Your task to perform on an android device: turn on improve location accuracy Image 0: 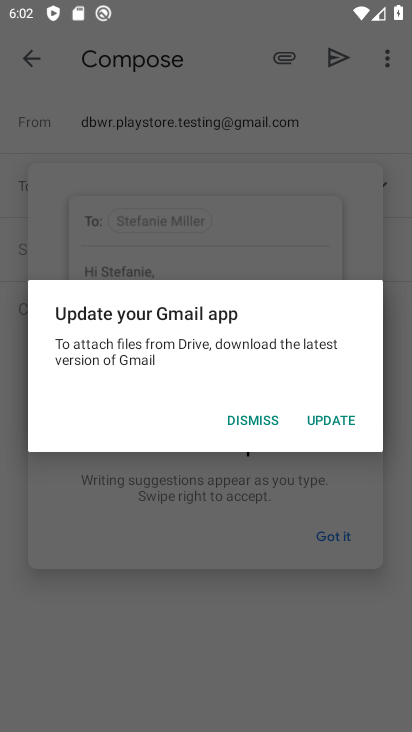
Step 0: press home button
Your task to perform on an android device: turn on improve location accuracy Image 1: 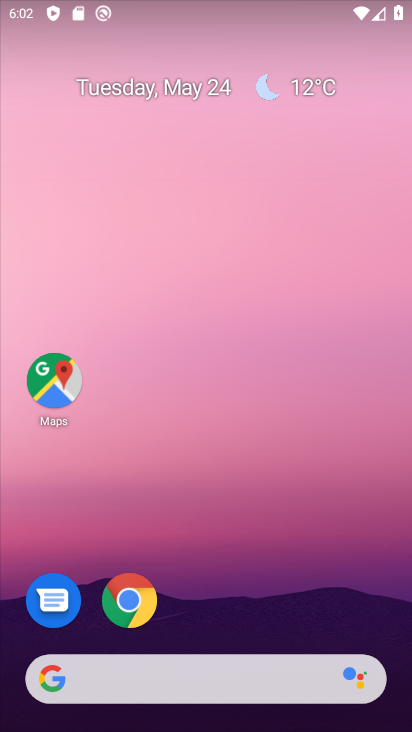
Step 1: drag from (236, 690) to (185, 82)
Your task to perform on an android device: turn on improve location accuracy Image 2: 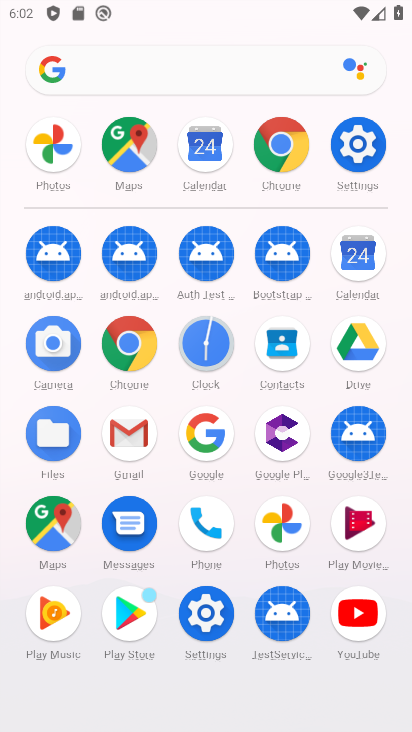
Step 2: click (226, 627)
Your task to perform on an android device: turn on improve location accuracy Image 3: 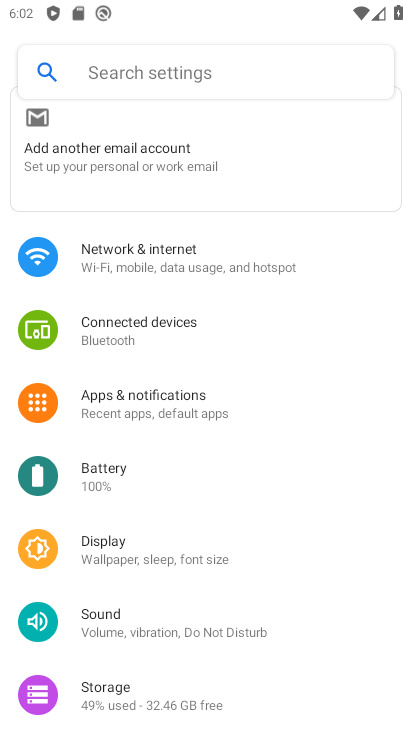
Step 3: drag from (215, 677) to (224, 289)
Your task to perform on an android device: turn on improve location accuracy Image 4: 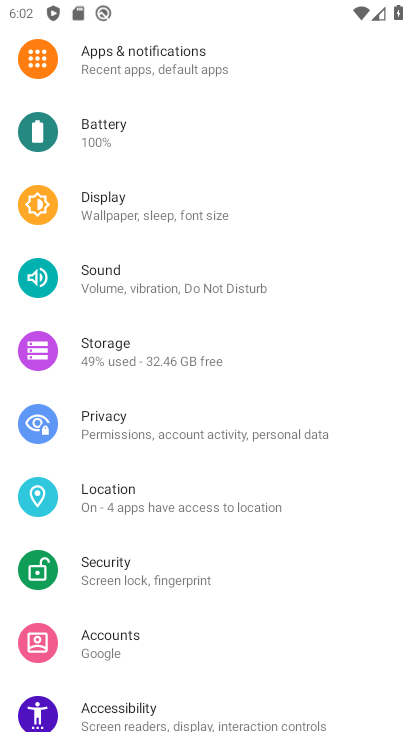
Step 4: click (166, 498)
Your task to perform on an android device: turn on improve location accuracy Image 5: 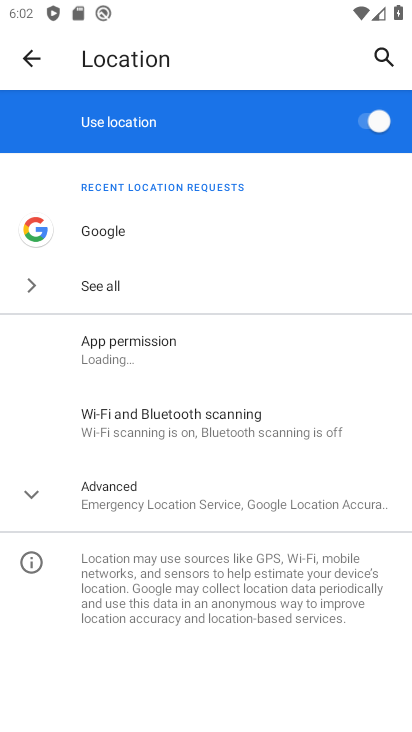
Step 5: drag from (259, 644) to (262, 346)
Your task to perform on an android device: turn on improve location accuracy Image 6: 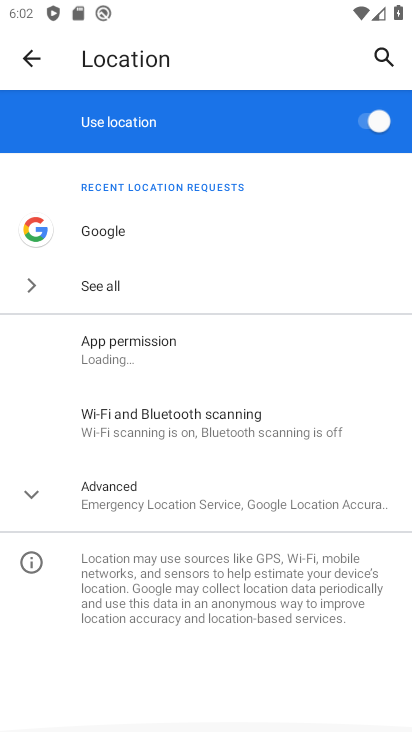
Step 6: click (225, 500)
Your task to perform on an android device: turn on improve location accuracy Image 7: 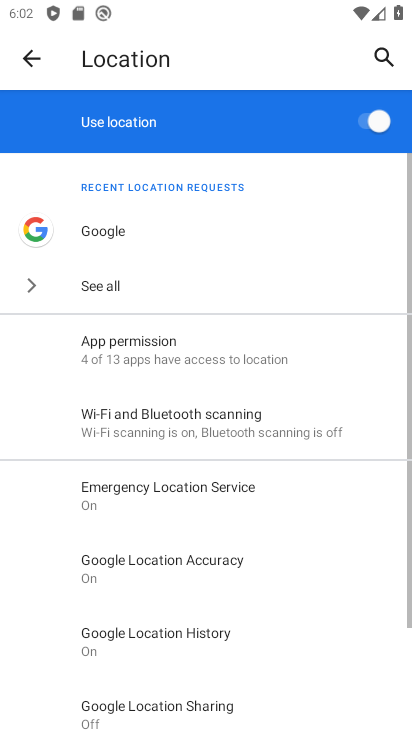
Step 7: drag from (258, 658) to (150, 418)
Your task to perform on an android device: turn on improve location accuracy Image 8: 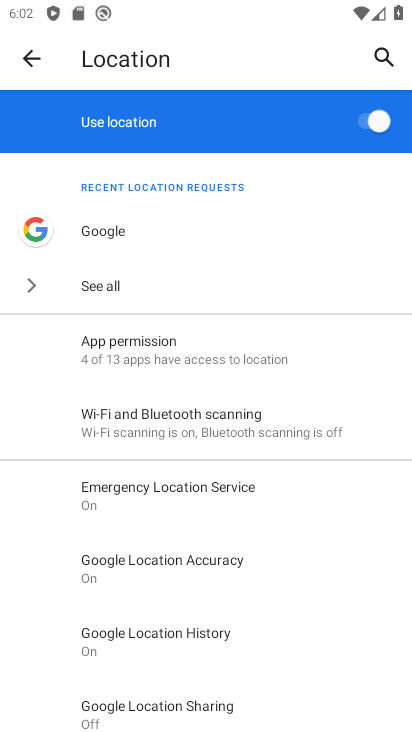
Step 8: click (168, 569)
Your task to perform on an android device: turn on improve location accuracy Image 9: 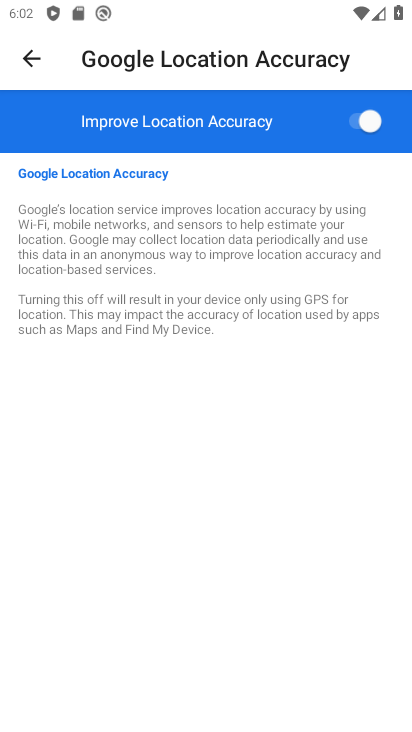
Step 9: task complete